Your task to perform on an android device: open chrome privacy settings Image 0: 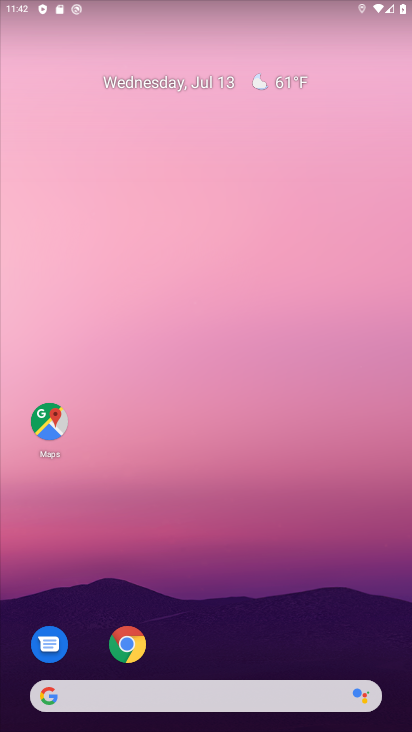
Step 0: click (129, 648)
Your task to perform on an android device: open chrome privacy settings Image 1: 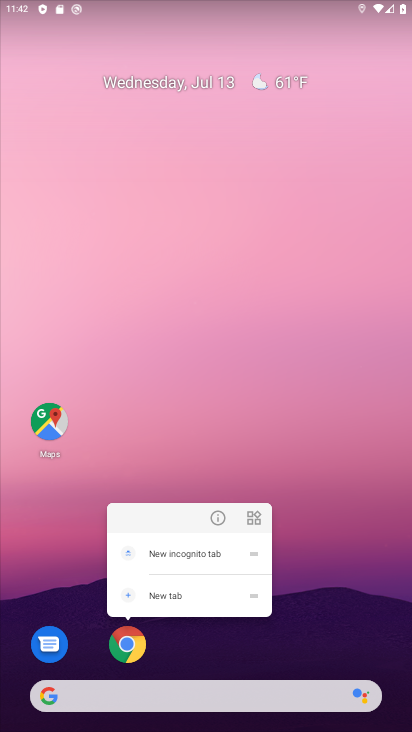
Step 1: click (127, 648)
Your task to perform on an android device: open chrome privacy settings Image 2: 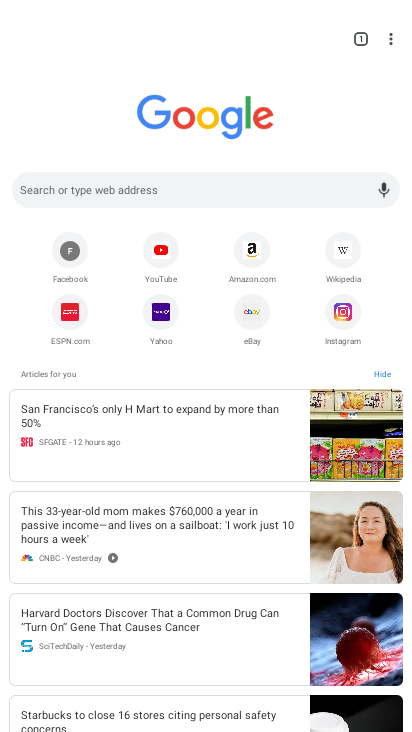
Step 2: click (388, 34)
Your task to perform on an android device: open chrome privacy settings Image 3: 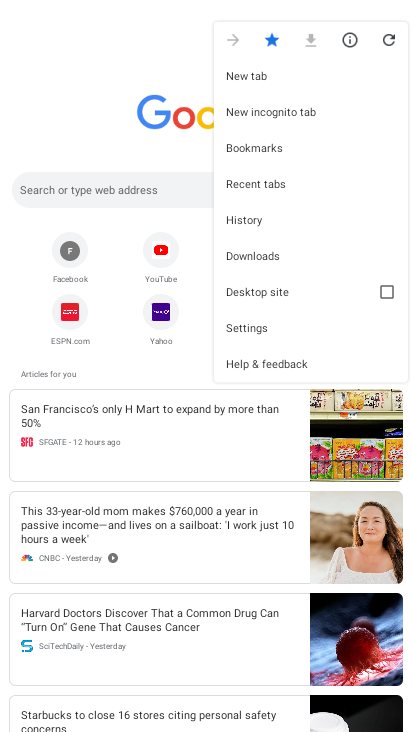
Step 3: click (267, 313)
Your task to perform on an android device: open chrome privacy settings Image 4: 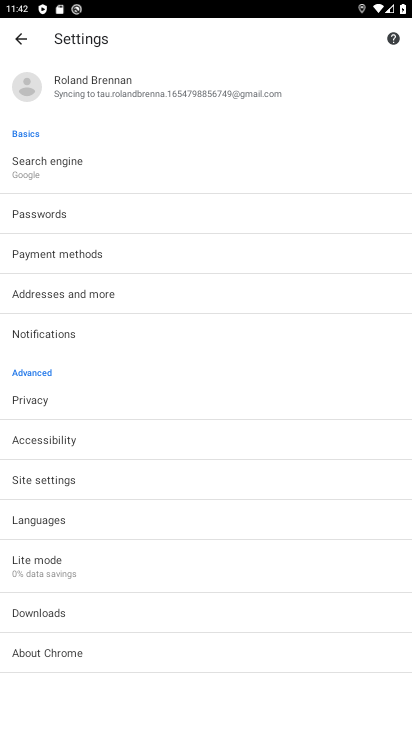
Step 4: click (16, 398)
Your task to perform on an android device: open chrome privacy settings Image 5: 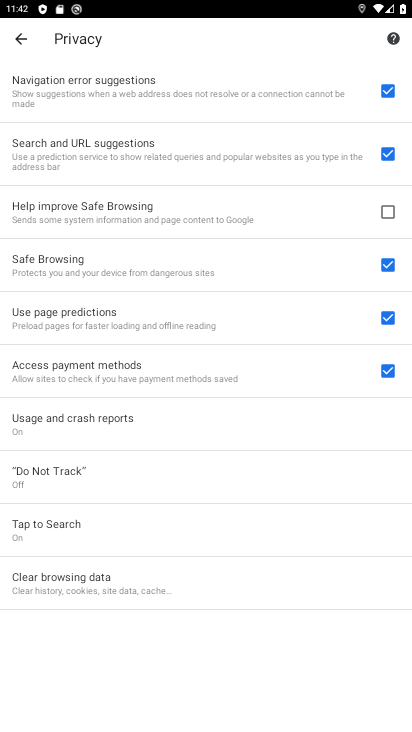
Step 5: task complete